Your task to perform on an android device: toggle priority inbox in the gmail app Image 0: 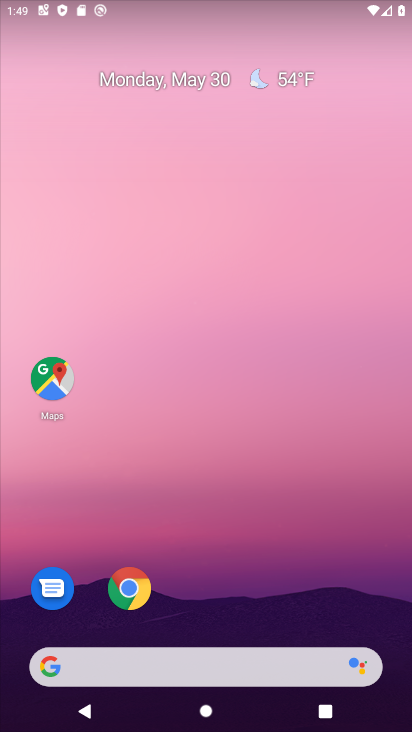
Step 0: drag from (226, 584) to (237, 73)
Your task to perform on an android device: toggle priority inbox in the gmail app Image 1: 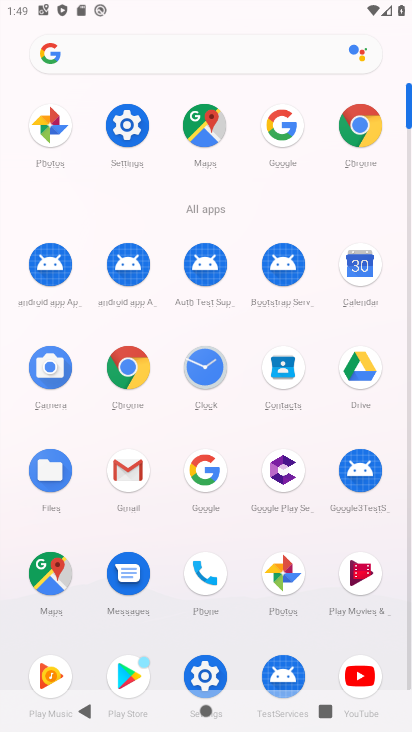
Step 1: click (122, 465)
Your task to perform on an android device: toggle priority inbox in the gmail app Image 2: 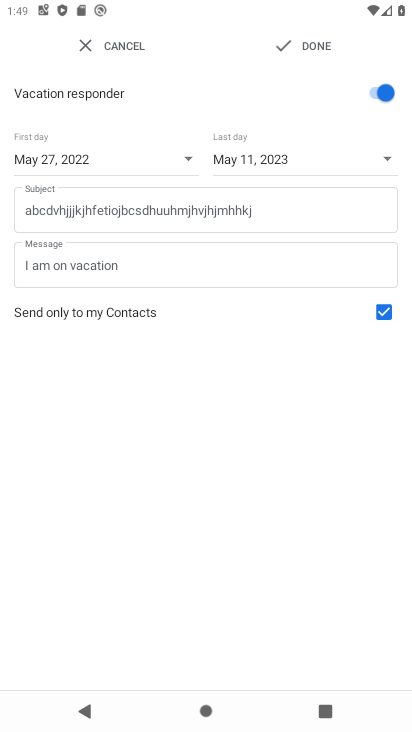
Step 2: press back button
Your task to perform on an android device: toggle priority inbox in the gmail app Image 3: 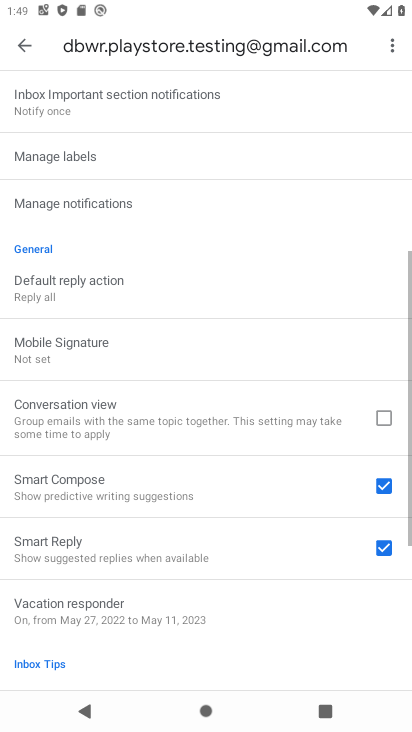
Step 3: drag from (189, 217) to (248, 566)
Your task to perform on an android device: toggle priority inbox in the gmail app Image 4: 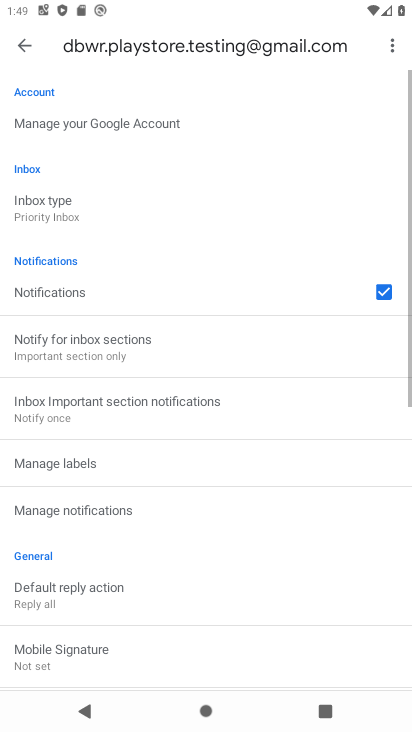
Step 4: click (64, 209)
Your task to perform on an android device: toggle priority inbox in the gmail app Image 5: 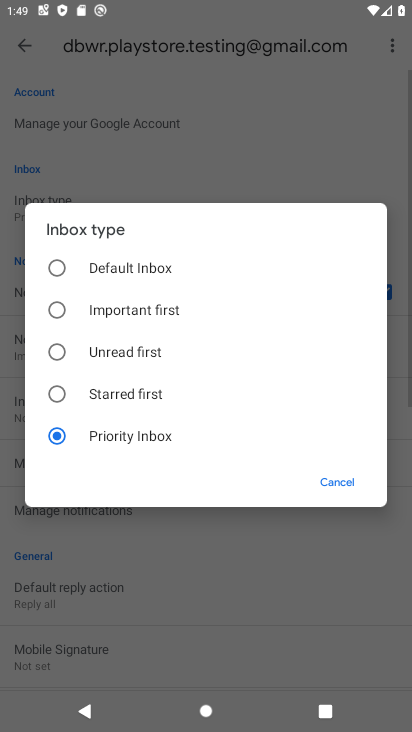
Step 5: click (51, 268)
Your task to perform on an android device: toggle priority inbox in the gmail app Image 6: 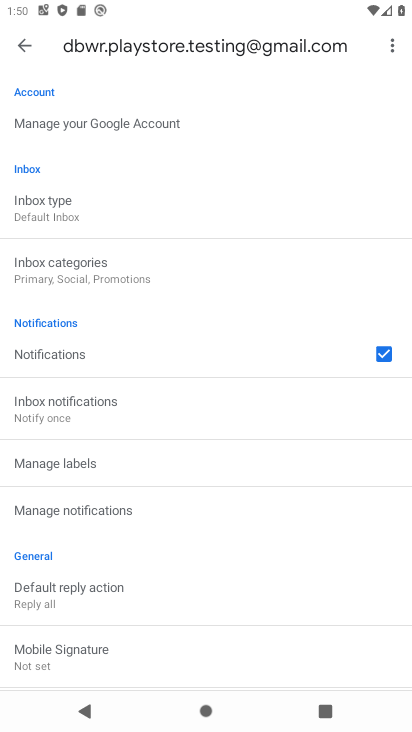
Step 6: task complete